Your task to perform on an android device: remove spam from my inbox in the gmail app Image 0: 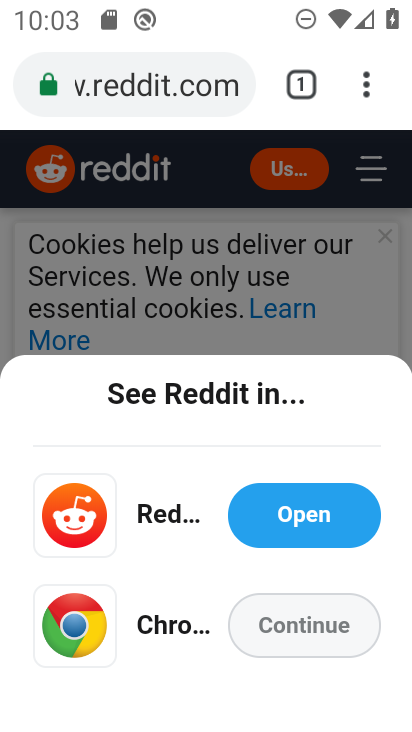
Step 0: press home button
Your task to perform on an android device: remove spam from my inbox in the gmail app Image 1: 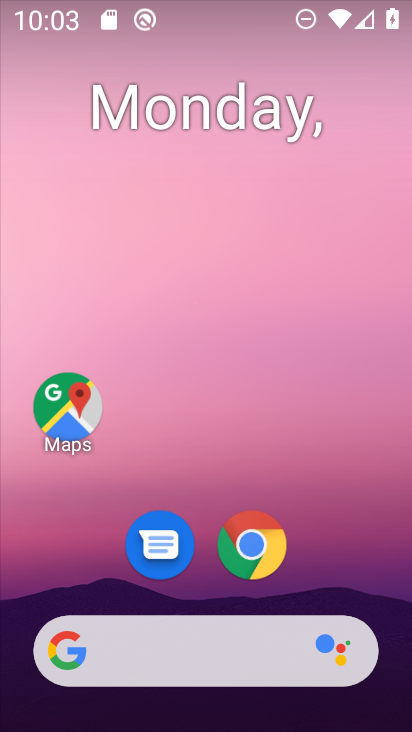
Step 1: drag from (34, 564) to (269, 77)
Your task to perform on an android device: remove spam from my inbox in the gmail app Image 2: 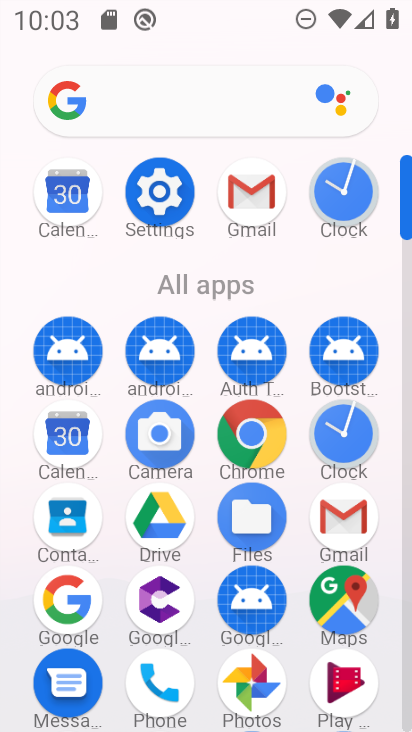
Step 2: click (258, 191)
Your task to perform on an android device: remove spam from my inbox in the gmail app Image 3: 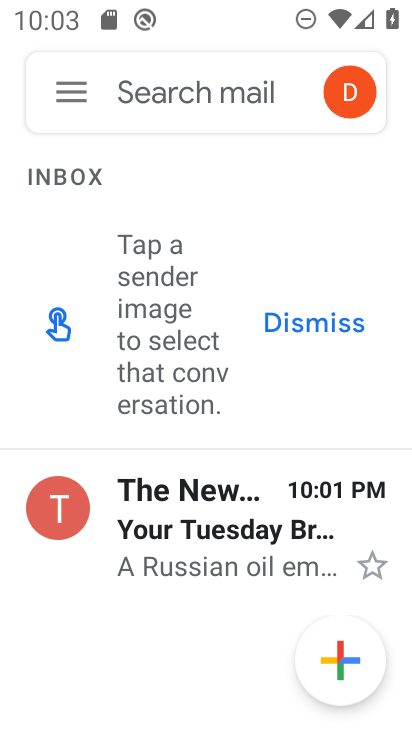
Step 3: click (69, 102)
Your task to perform on an android device: remove spam from my inbox in the gmail app Image 4: 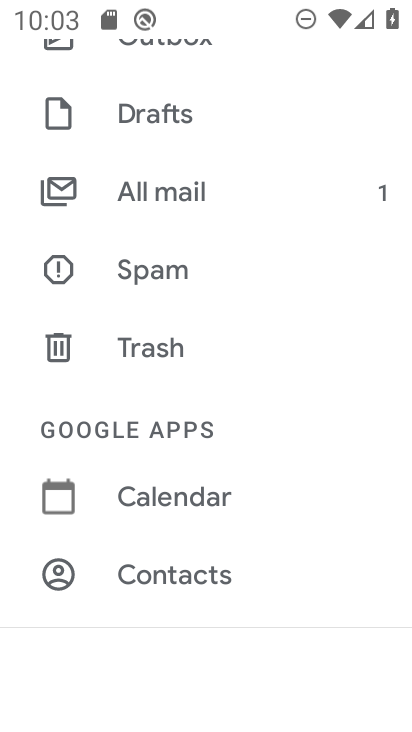
Step 4: click (126, 272)
Your task to perform on an android device: remove spam from my inbox in the gmail app Image 5: 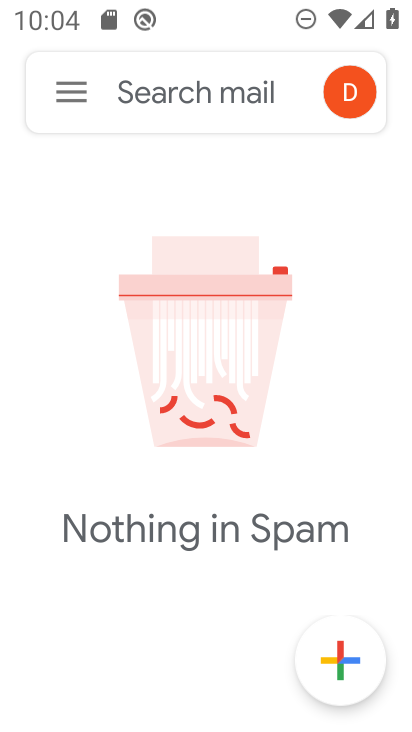
Step 5: task complete